Your task to perform on an android device: Open the stopwatch Image 0: 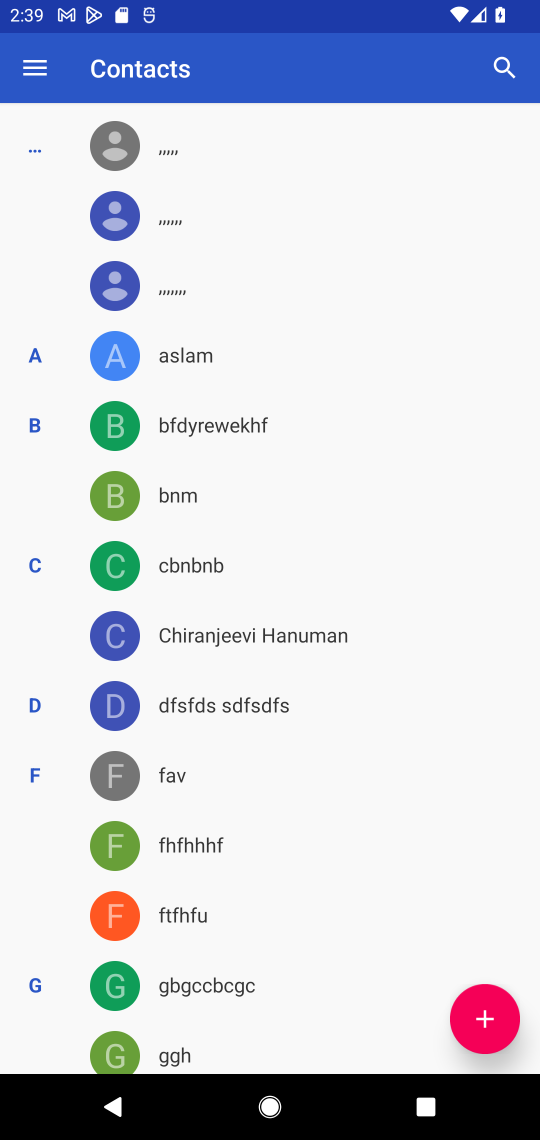
Step 0: press home button
Your task to perform on an android device: Open the stopwatch Image 1: 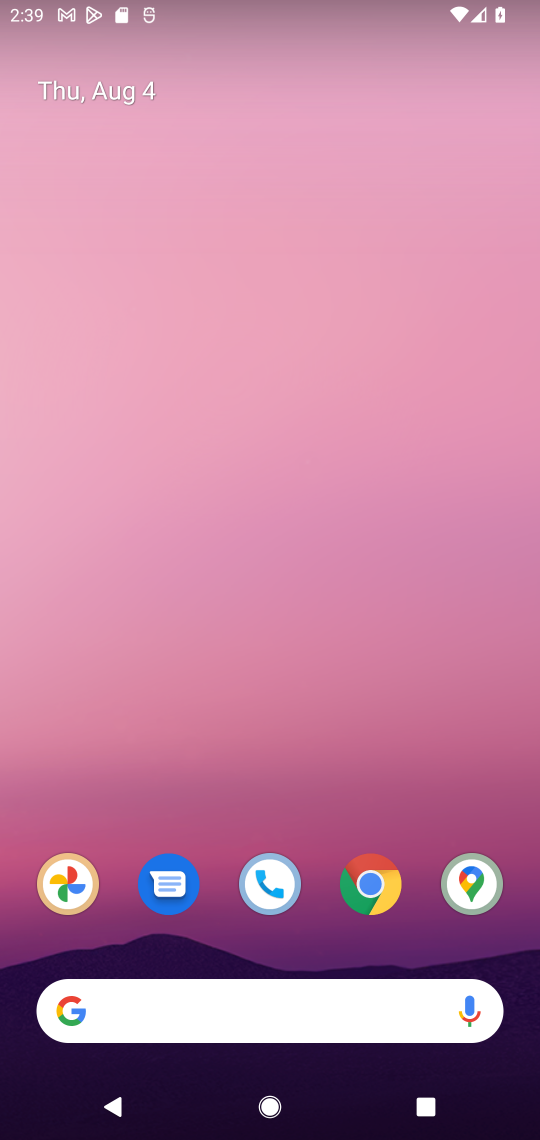
Step 1: drag from (329, 959) to (287, 135)
Your task to perform on an android device: Open the stopwatch Image 2: 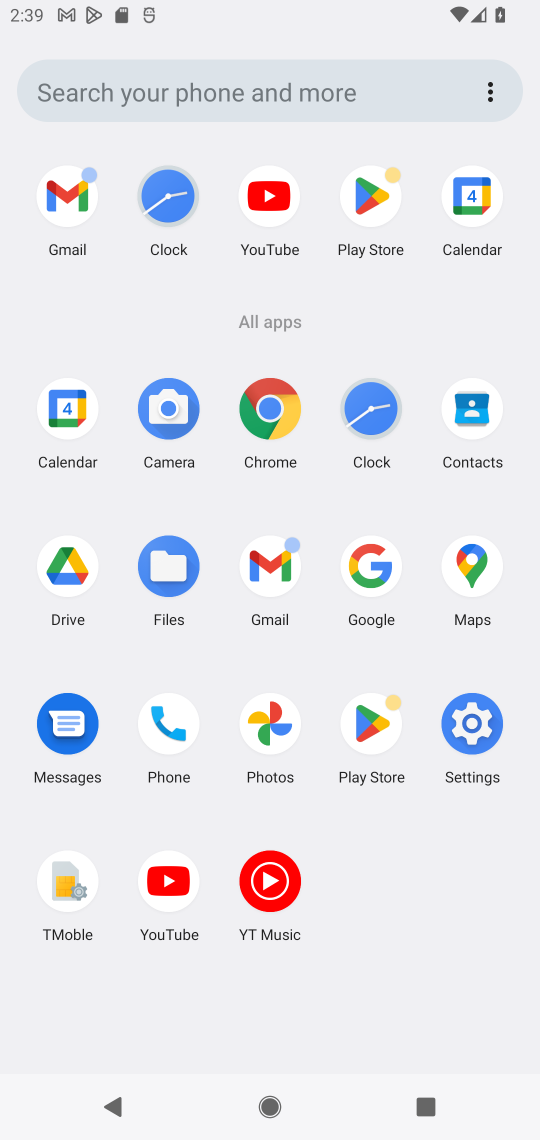
Step 2: click (358, 396)
Your task to perform on an android device: Open the stopwatch Image 3: 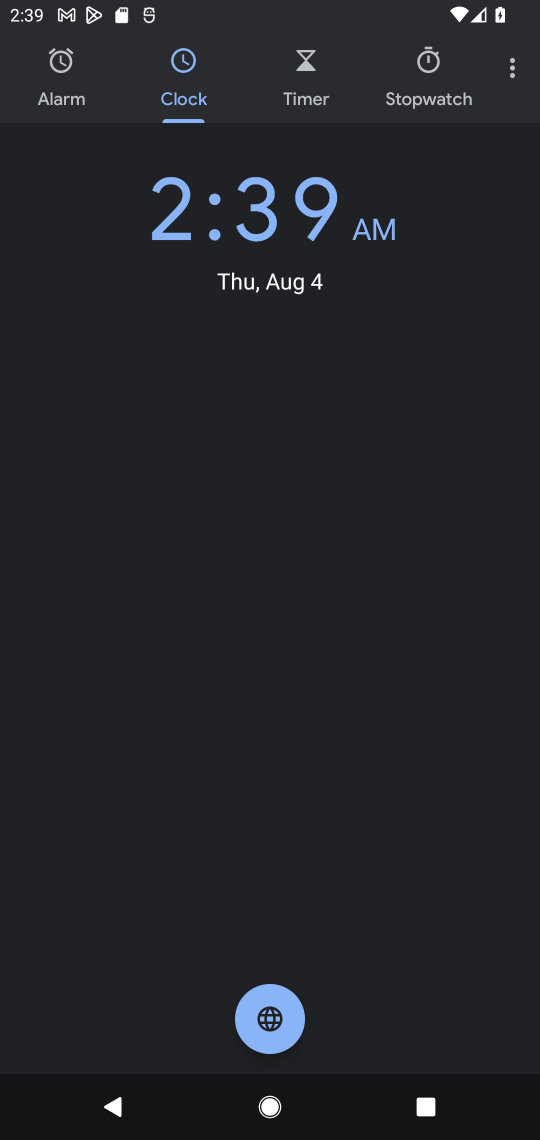
Step 3: click (423, 58)
Your task to perform on an android device: Open the stopwatch Image 4: 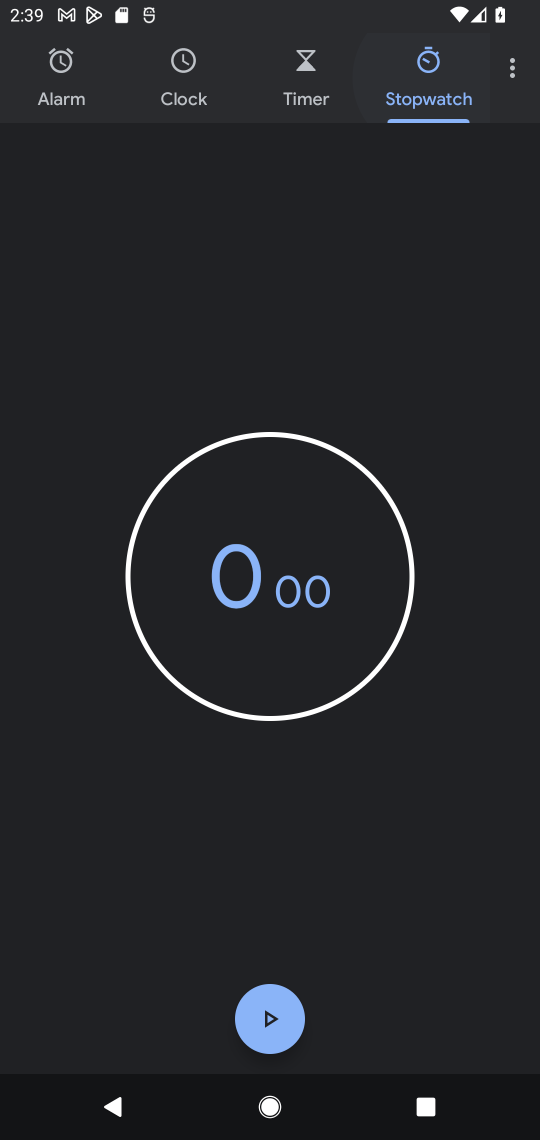
Step 4: task complete